Your task to perform on an android device: set the timer Image 0: 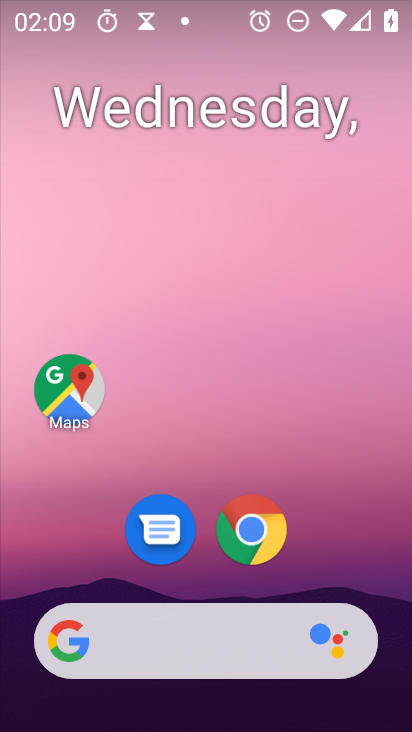
Step 0: drag from (260, 663) to (288, 65)
Your task to perform on an android device: set the timer Image 1: 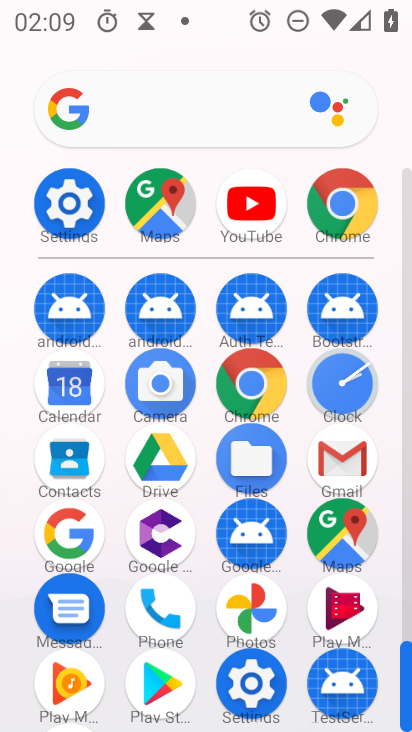
Step 1: click (336, 390)
Your task to perform on an android device: set the timer Image 2: 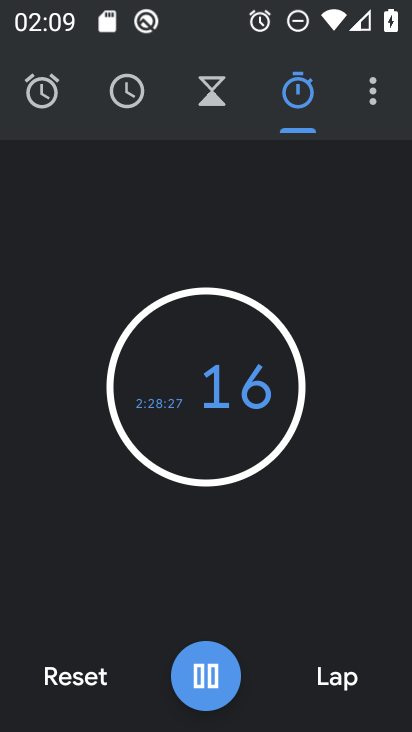
Step 2: click (216, 97)
Your task to perform on an android device: set the timer Image 3: 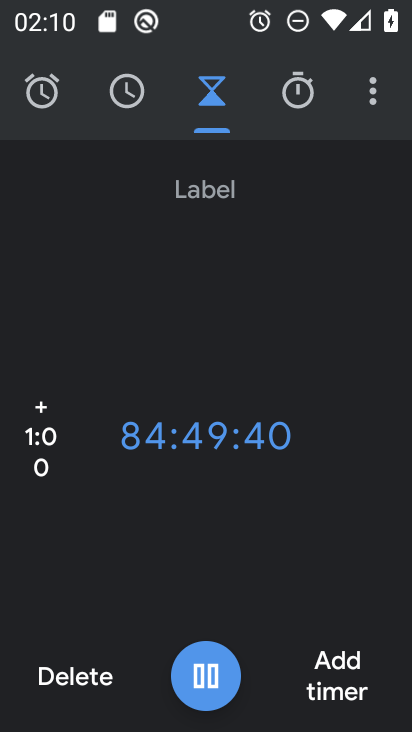
Step 3: click (79, 683)
Your task to perform on an android device: set the timer Image 4: 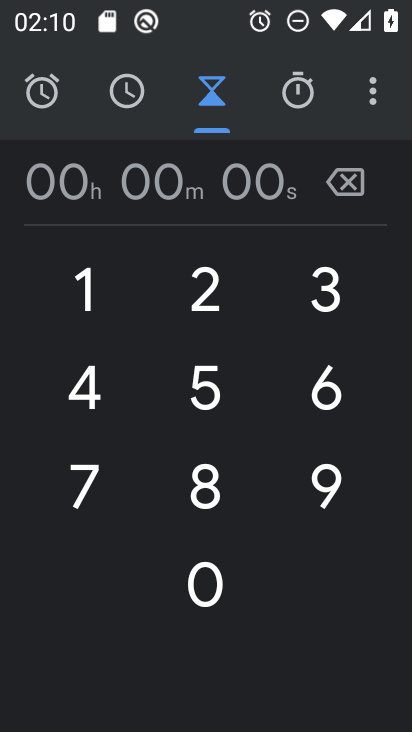
Step 4: click (199, 478)
Your task to perform on an android device: set the timer Image 5: 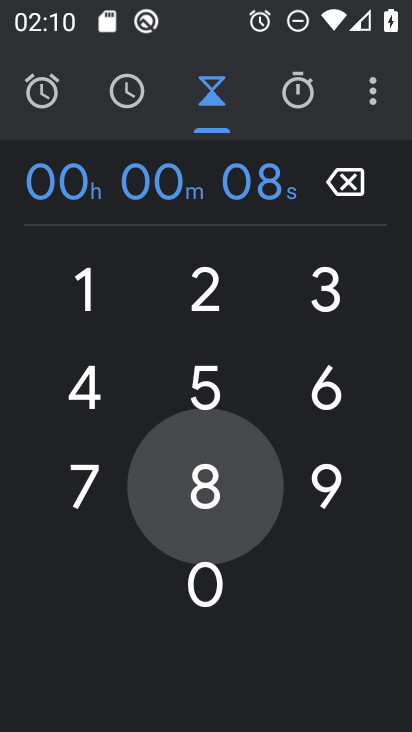
Step 5: click (194, 371)
Your task to perform on an android device: set the timer Image 6: 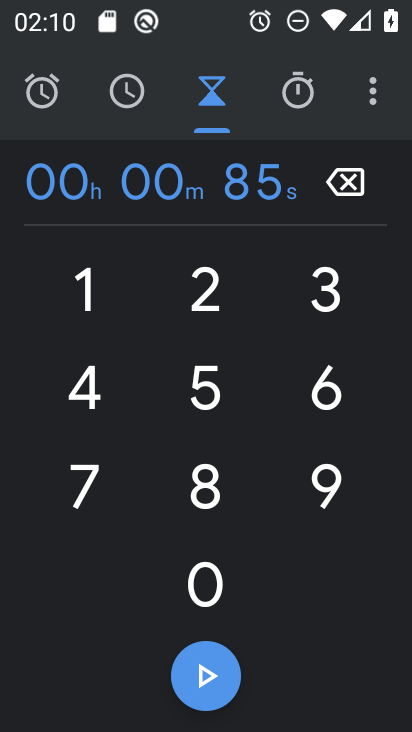
Step 6: click (203, 285)
Your task to perform on an android device: set the timer Image 7: 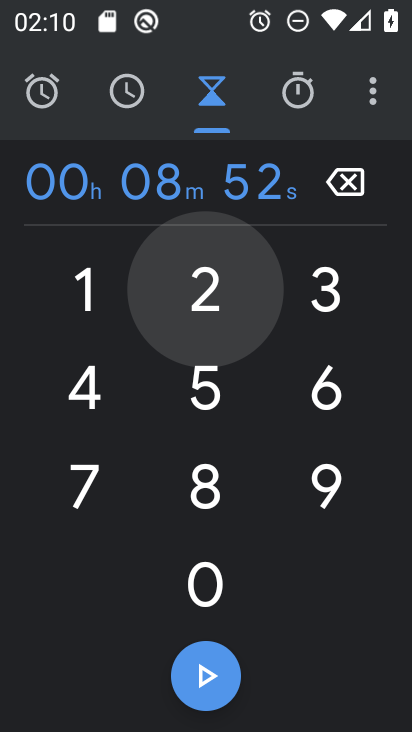
Step 7: click (312, 264)
Your task to perform on an android device: set the timer Image 8: 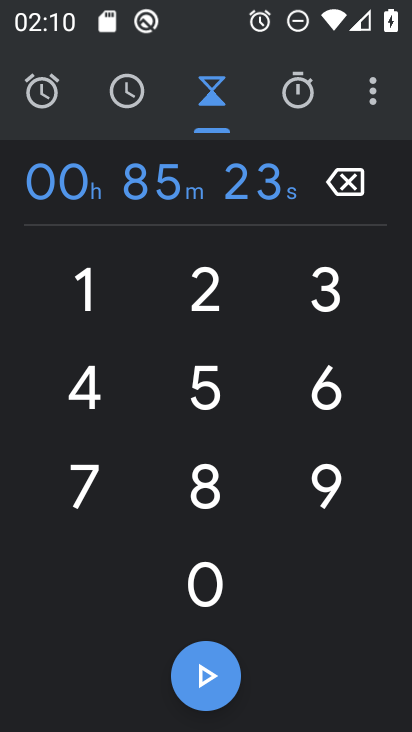
Step 8: click (90, 391)
Your task to perform on an android device: set the timer Image 9: 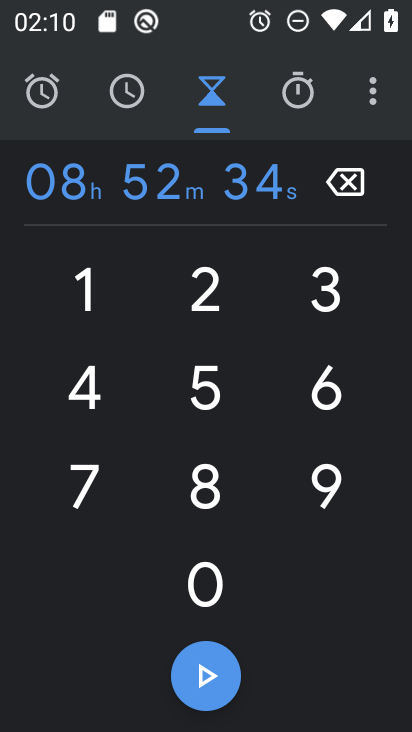
Step 9: click (191, 386)
Your task to perform on an android device: set the timer Image 10: 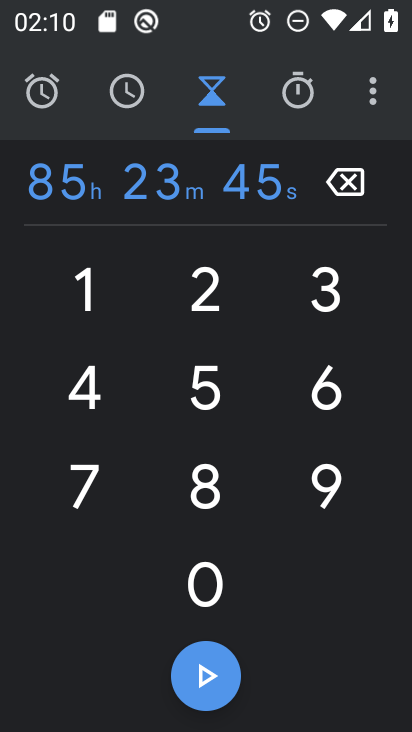
Step 10: click (217, 677)
Your task to perform on an android device: set the timer Image 11: 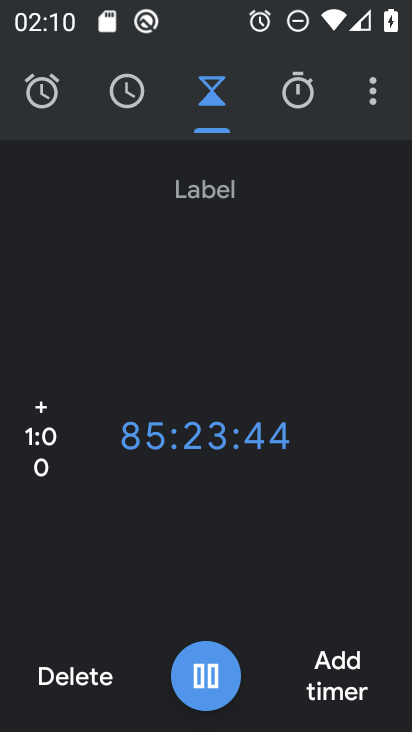
Step 11: task complete